Your task to perform on an android device: uninstall "Spotify" Image 0: 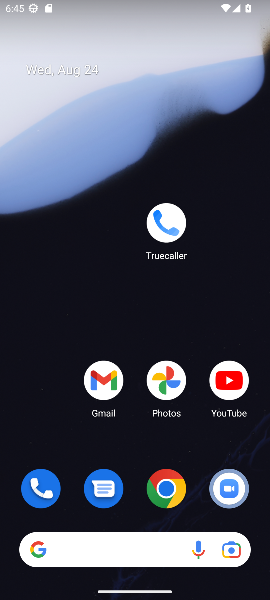
Step 0: drag from (139, 510) to (155, 14)
Your task to perform on an android device: uninstall "Spotify" Image 1: 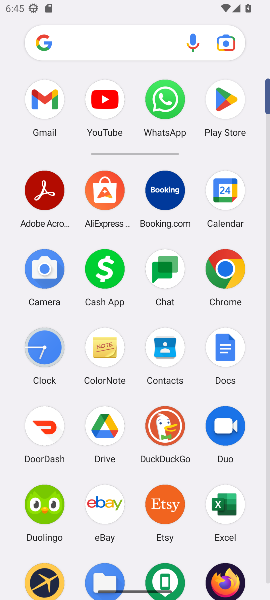
Step 1: click (223, 118)
Your task to perform on an android device: uninstall "Spotify" Image 2: 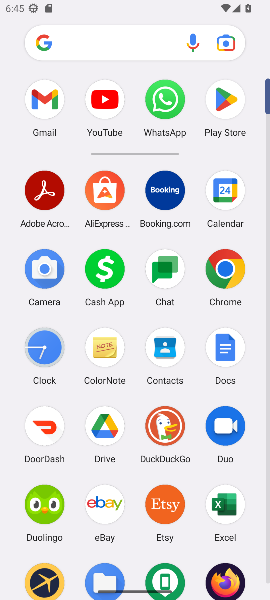
Step 2: click (223, 118)
Your task to perform on an android device: uninstall "Spotify" Image 3: 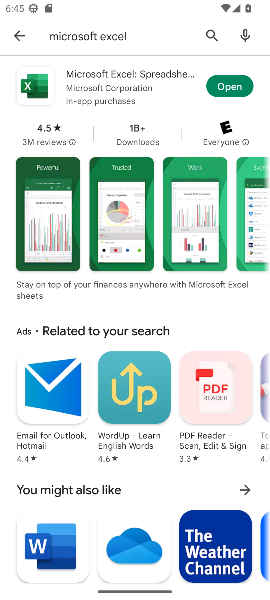
Step 3: click (214, 41)
Your task to perform on an android device: uninstall "Spotify" Image 4: 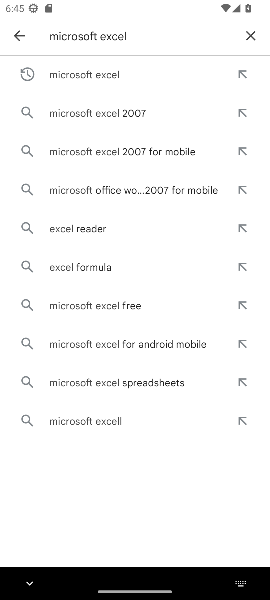
Step 4: click (244, 41)
Your task to perform on an android device: uninstall "Spotify" Image 5: 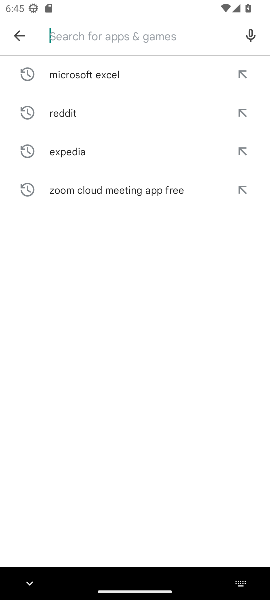
Step 5: type "spotify"
Your task to perform on an android device: uninstall "Spotify" Image 6: 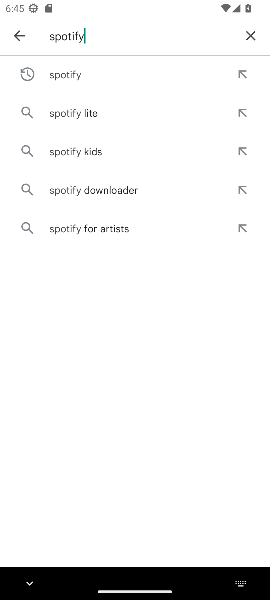
Step 6: click (97, 81)
Your task to perform on an android device: uninstall "Spotify" Image 7: 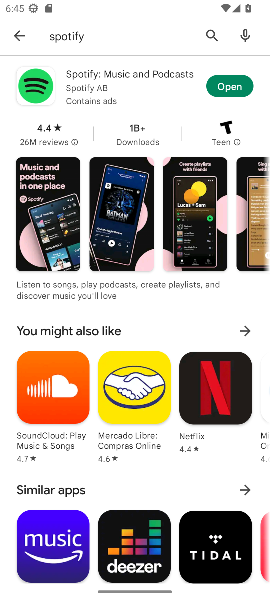
Step 7: click (234, 89)
Your task to perform on an android device: uninstall "Spotify" Image 8: 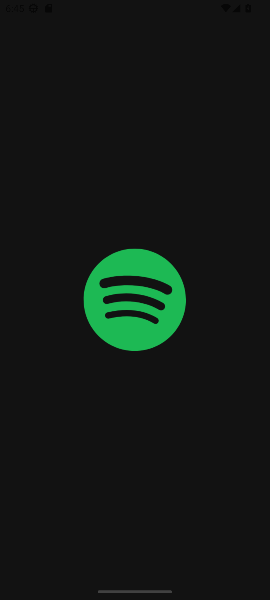
Step 8: task complete